Your task to perform on an android device: uninstall "Clock" Image 0: 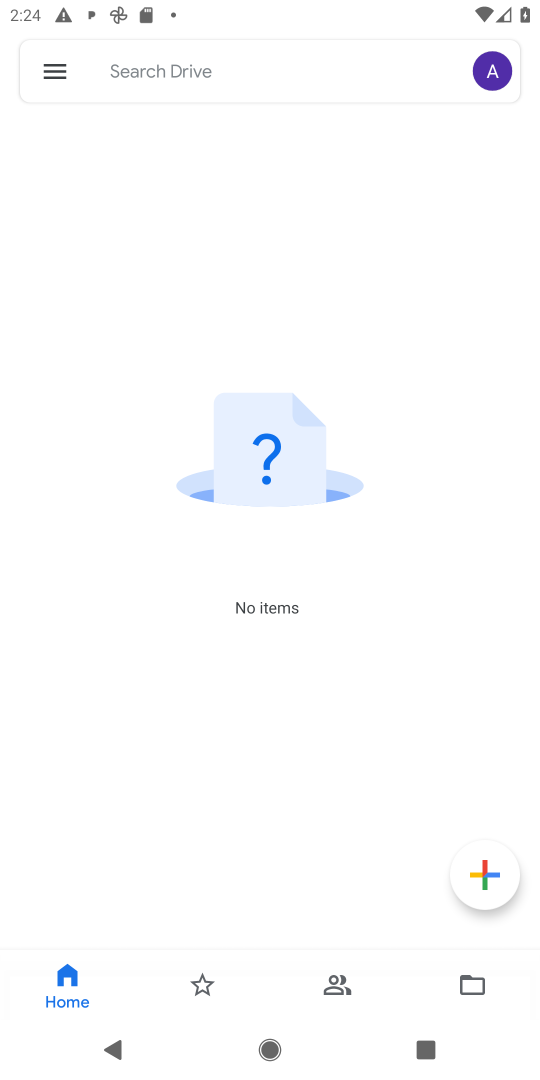
Step 0: press home button
Your task to perform on an android device: uninstall "Clock" Image 1: 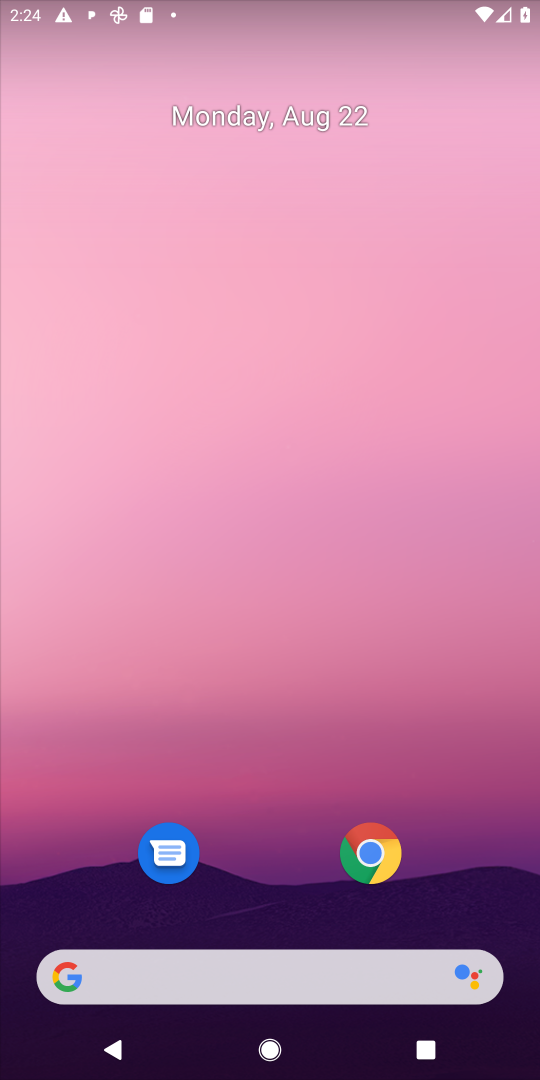
Step 1: drag from (276, 925) to (277, 193)
Your task to perform on an android device: uninstall "Clock" Image 2: 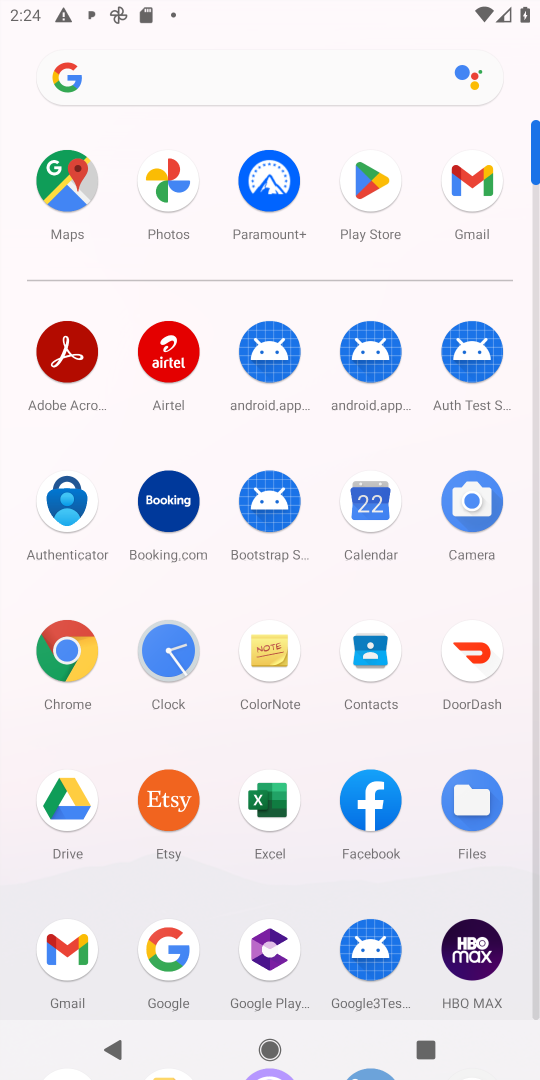
Step 2: click (370, 175)
Your task to perform on an android device: uninstall "Clock" Image 3: 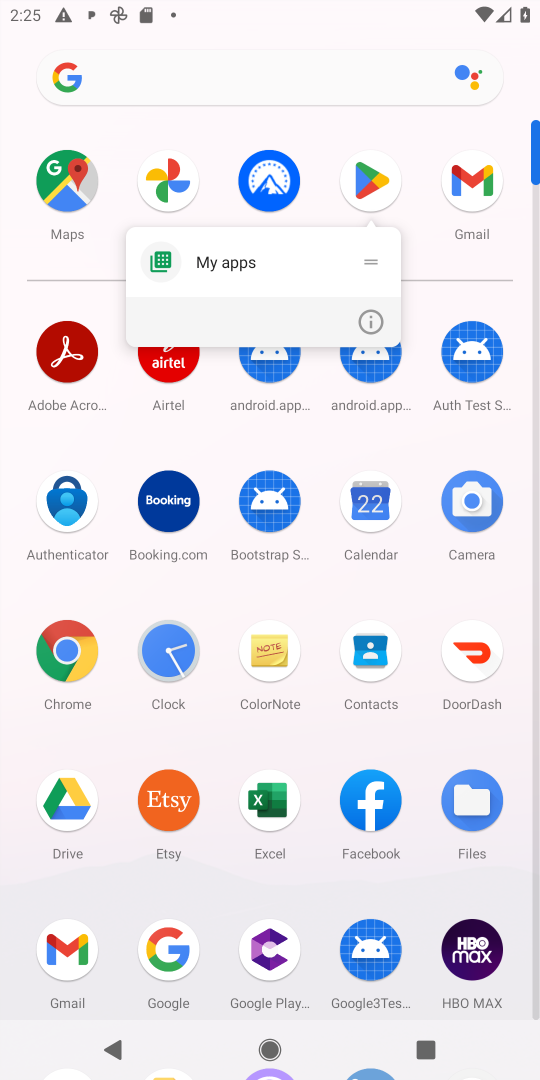
Step 3: click (361, 180)
Your task to perform on an android device: uninstall "Clock" Image 4: 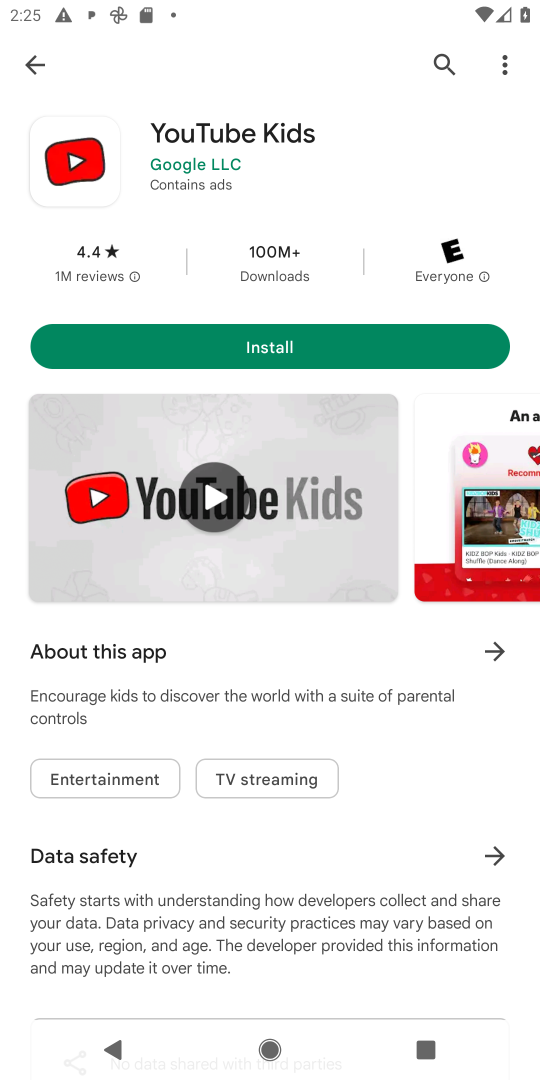
Step 4: click (43, 48)
Your task to perform on an android device: uninstall "Clock" Image 5: 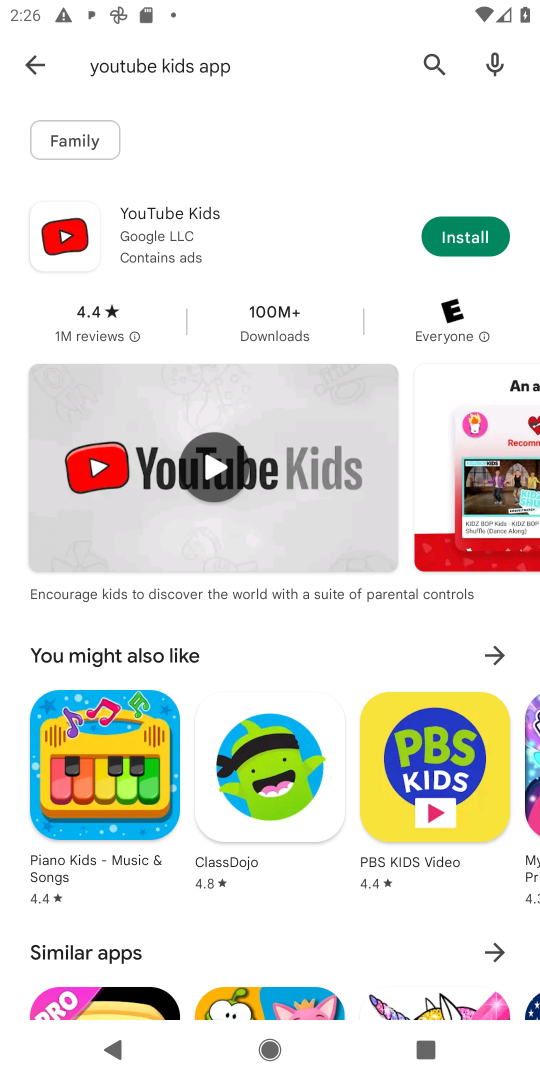
Step 5: click (33, 49)
Your task to perform on an android device: uninstall "Clock" Image 6: 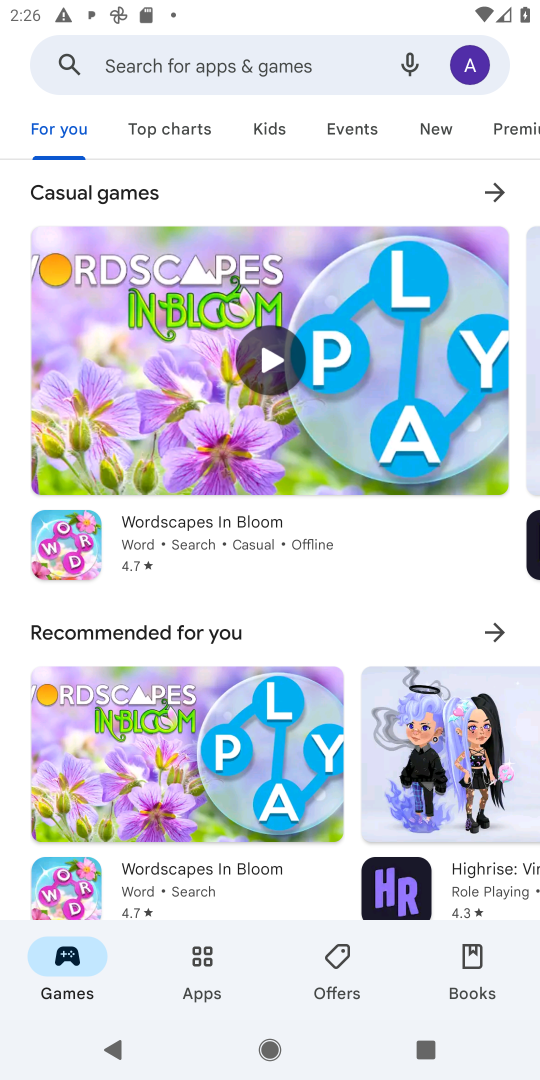
Step 6: click (182, 63)
Your task to perform on an android device: uninstall "Clock" Image 7: 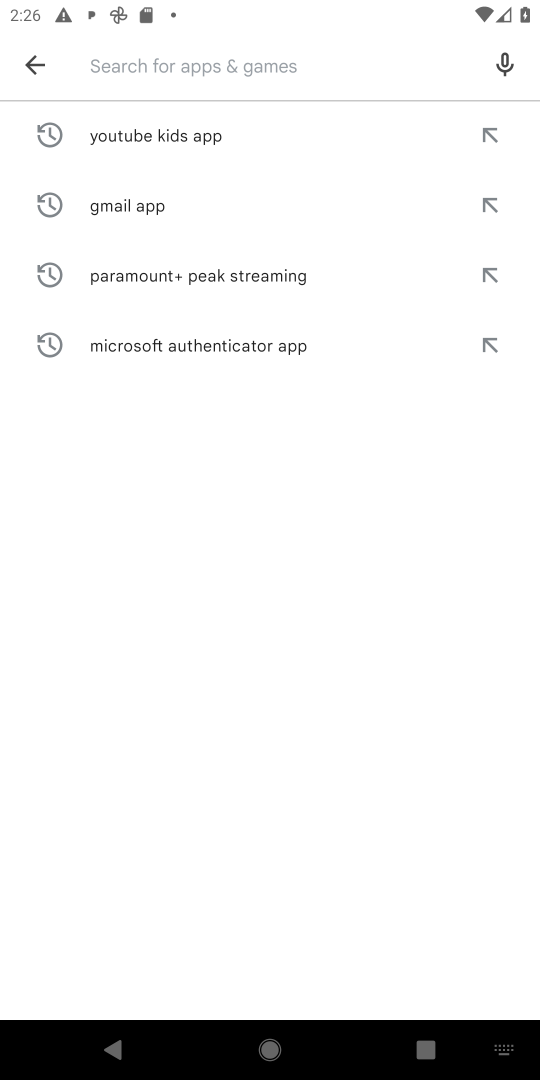
Step 7: type "clock "
Your task to perform on an android device: uninstall "Clock" Image 8: 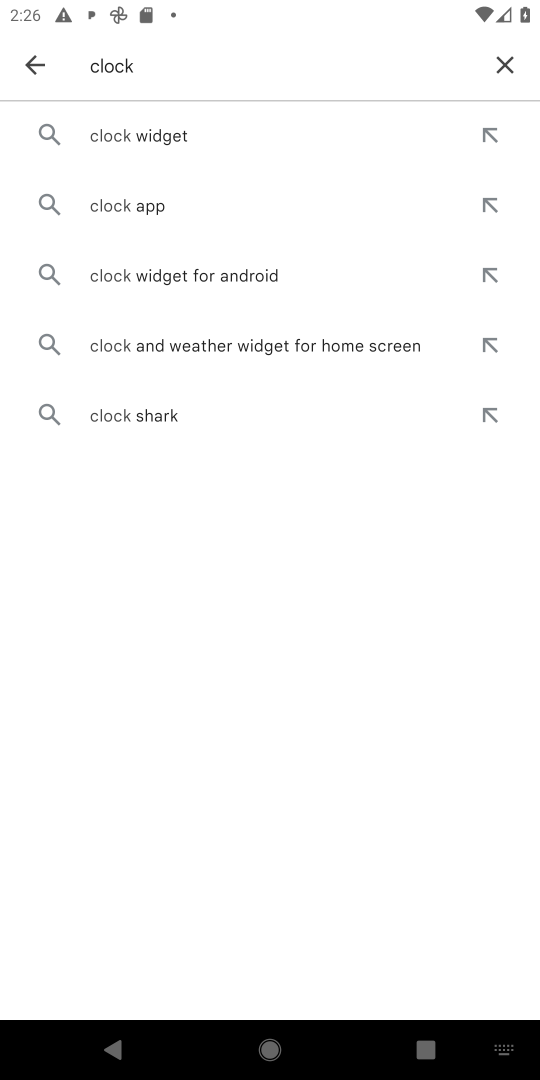
Step 8: click (172, 205)
Your task to perform on an android device: uninstall "Clock" Image 9: 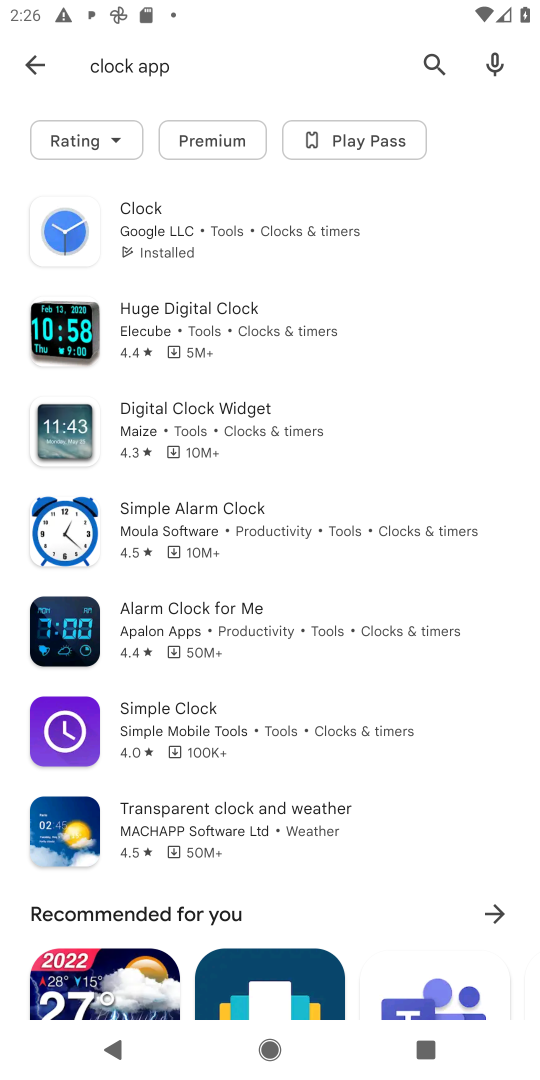
Step 9: click (180, 205)
Your task to perform on an android device: uninstall "Clock" Image 10: 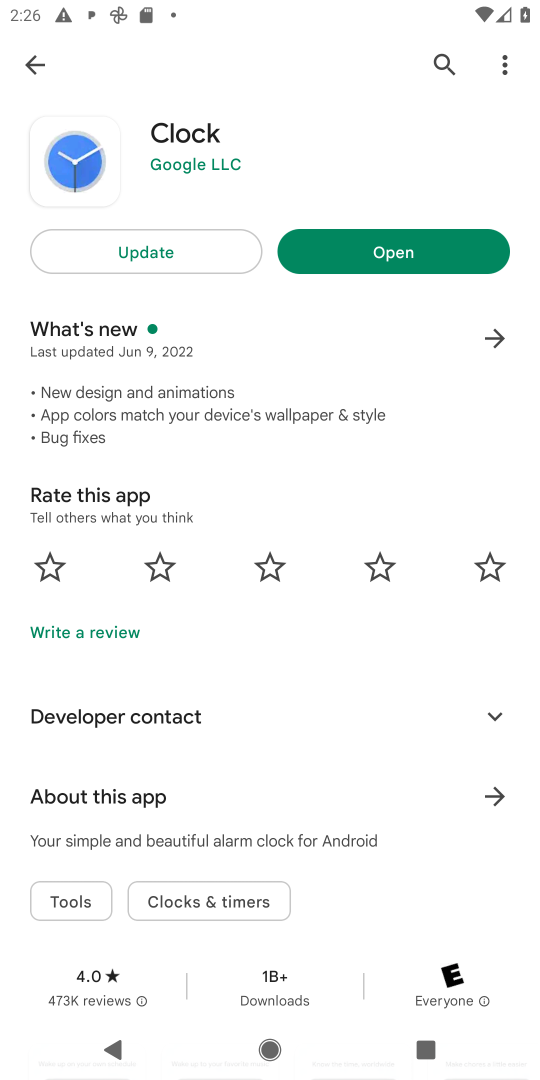
Step 10: click (208, 248)
Your task to perform on an android device: uninstall "Clock" Image 11: 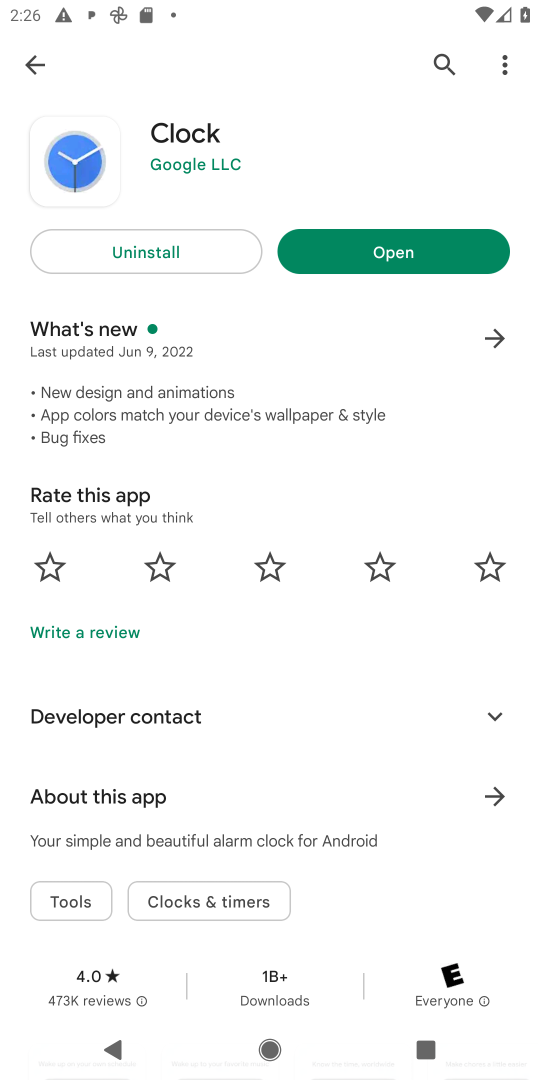
Step 11: click (208, 248)
Your task to perform on an android device: uninstall "Clock" Image 12: 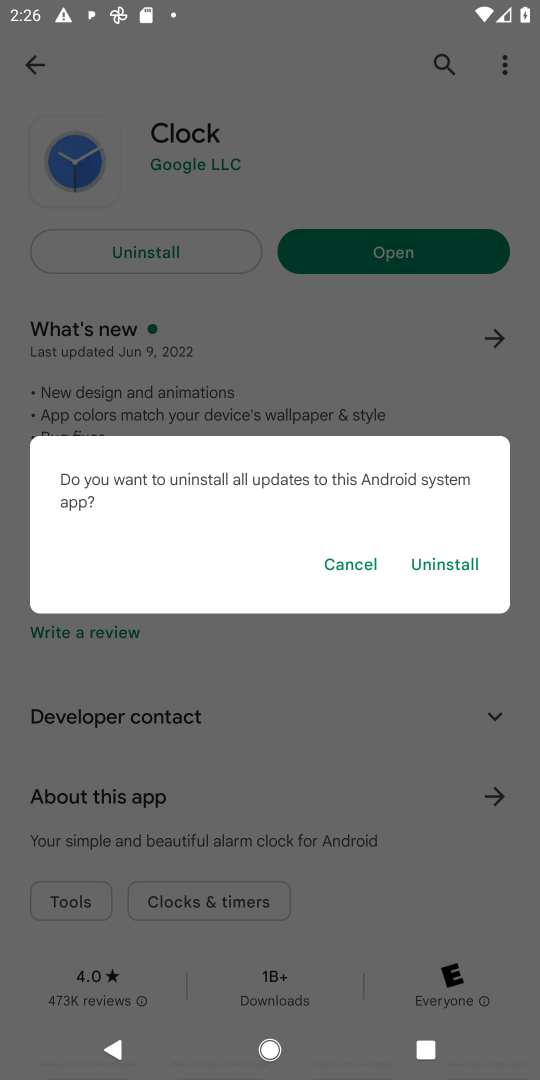
Step 12: click (430, 560)
Your task to perform on an android device: uninstall "Clock" Image 13: 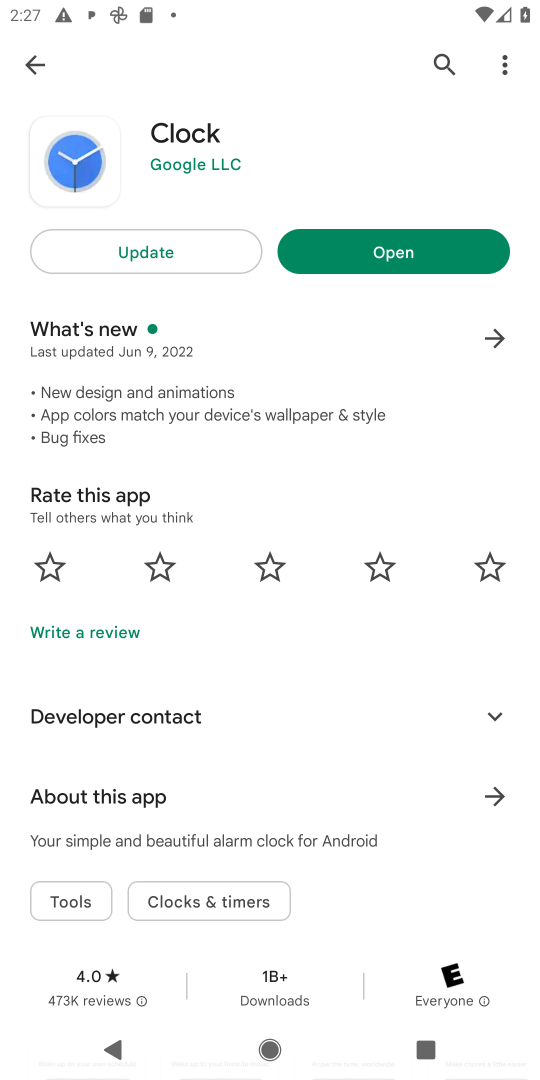
Step 13: task complete